Your task to perform on an android device: change the clock style Image 0: 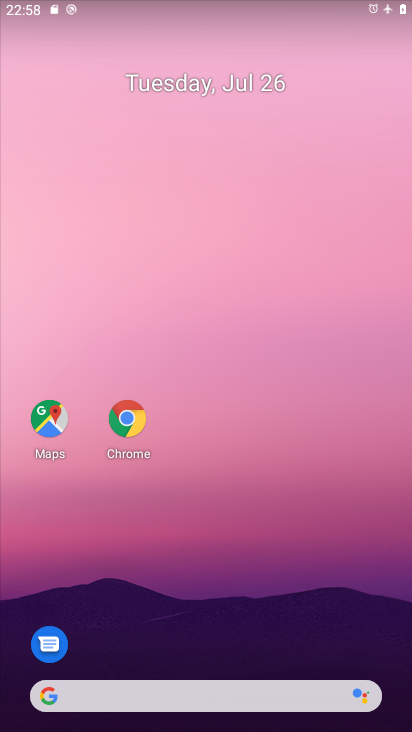
Step 0: drag from (230, 603) to (253, 181)
Your task to perform on an android device: change the clock style Image 1: 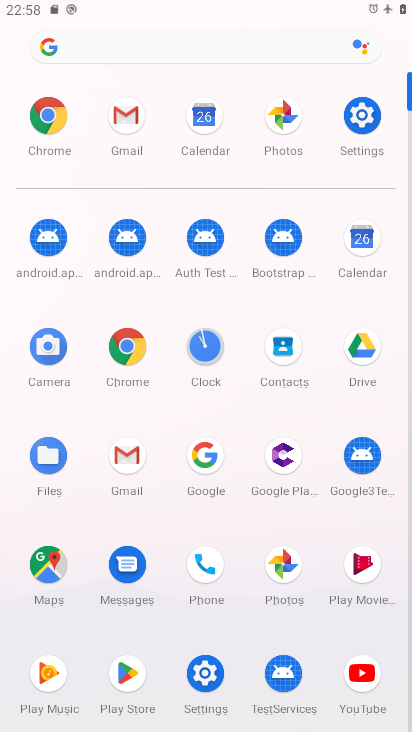
Step 1: click (206, 343)
Your task to perform on an android device: change the clock style Image 2: 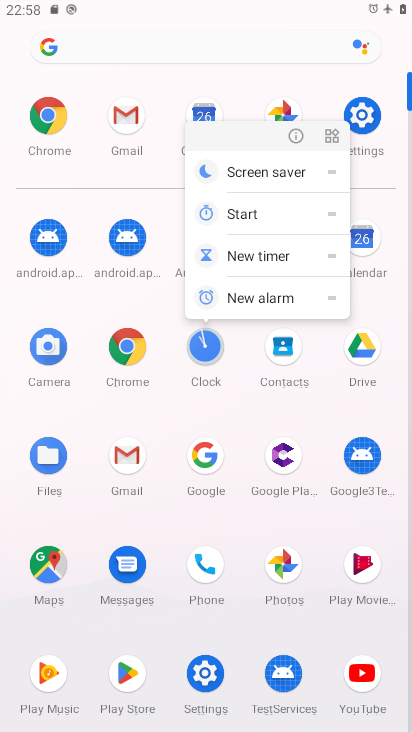
Step 2: click (206, 343)
Your task to perform on an android device: change the clock style Image 3: 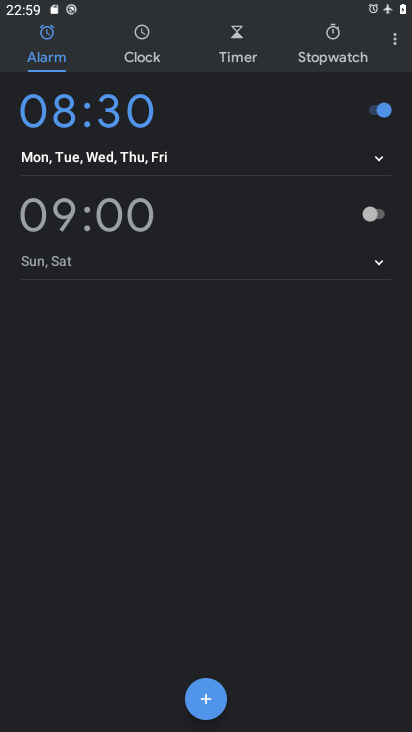
Step 3: click (403, 44)
Your task to perform on an android device: change the clock style Image 4: 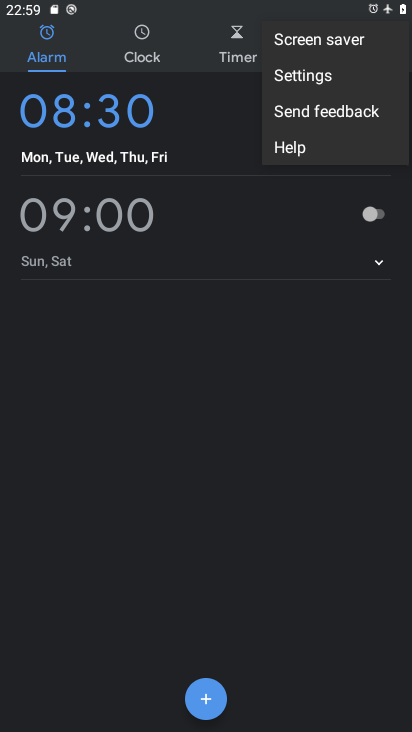
Step 4: click (334, 82)
Your task to perform on an android device: change the clock style Image 5: 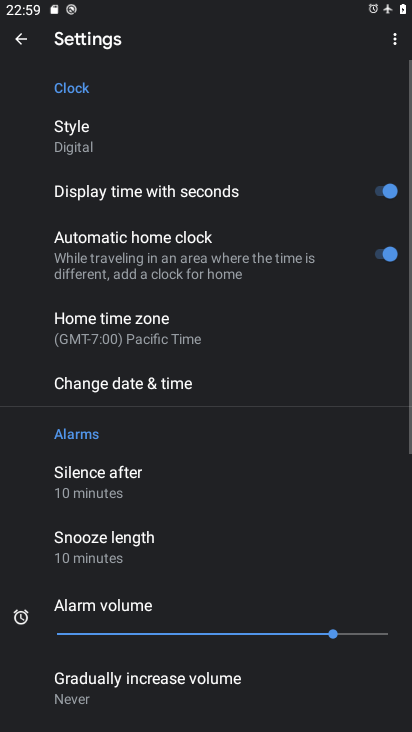
Step 5: click (72, 140)
Your task to perform on an android device: change the clock style Image 6: 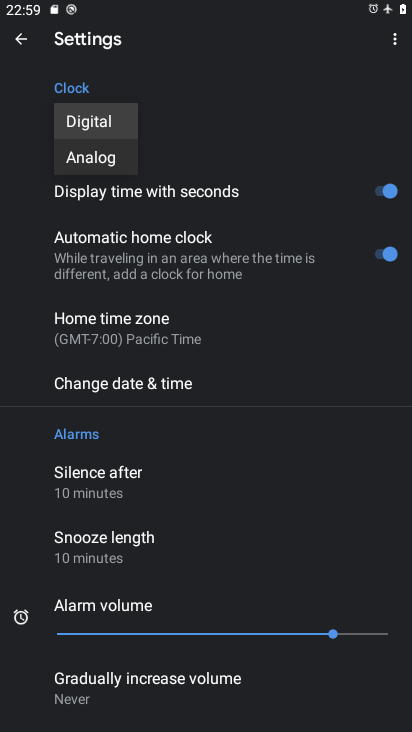
Step 6: click (86, 158)
Your task to perform on an android device: change the clock style Image 7: 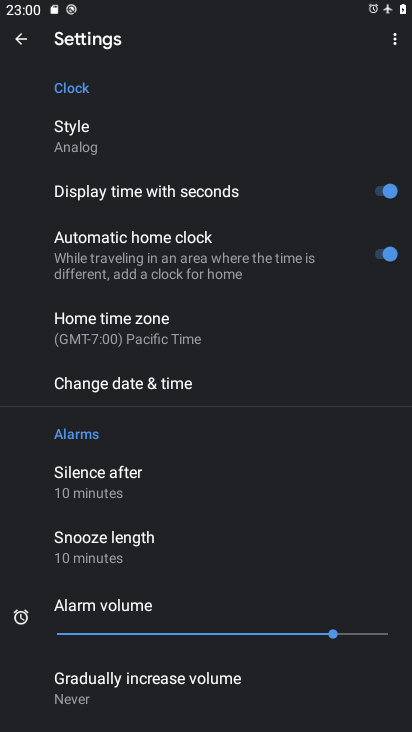
Step 7: task complete